Your task to perform on an android device: turn on showing notifications on the lock screen Image 0: 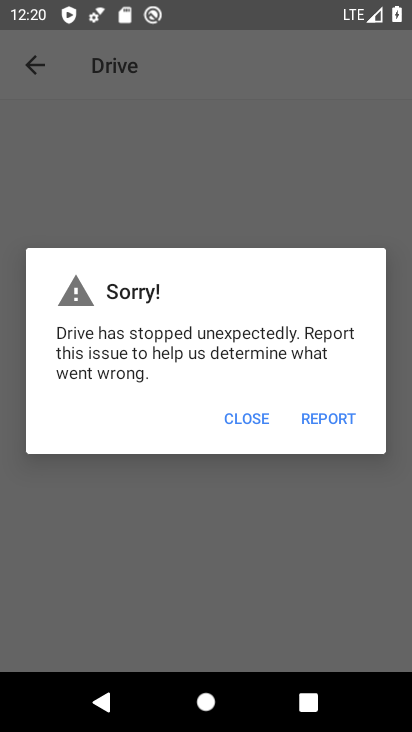
Step 0: press home button
Your task to perform on an android device: turn on showing notifications on the lock screen Image 1: 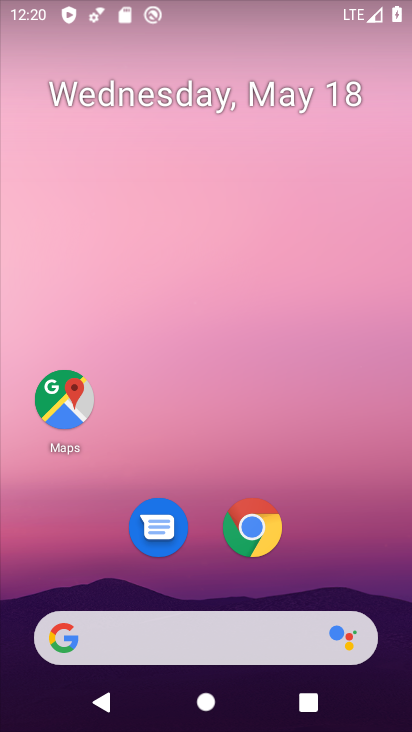
Step 1: drag from (318, 536) to (197, 75)
Your task to perform on an android device: turn on showing notifications on the lock screen Image 2: 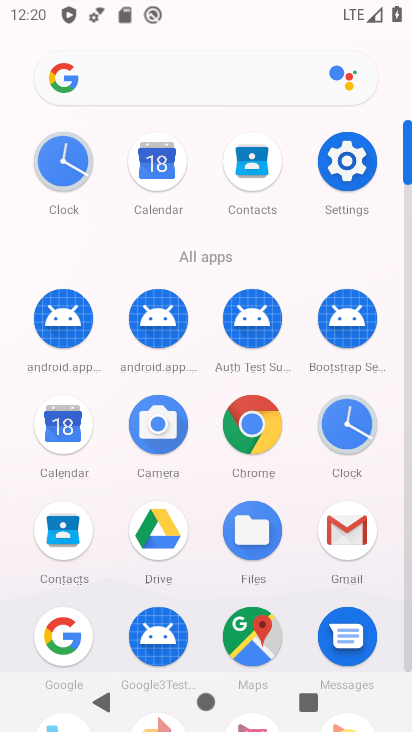
Step 2: click (345, 177)
Your task to perform on an android device: turn on showing notifications on the lock screen Image 3: 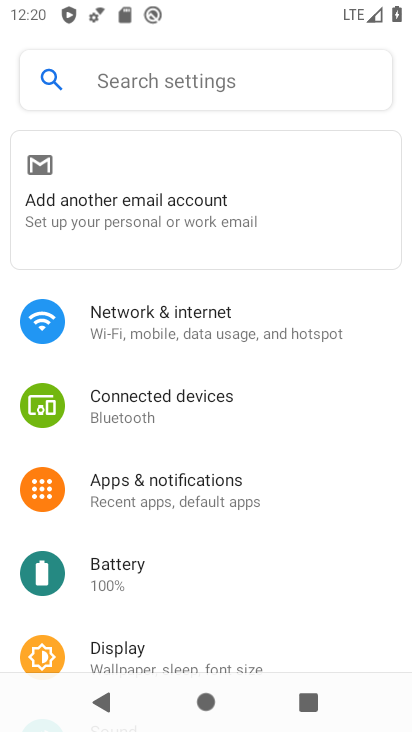
Step 3: click (197, 492)
Your task to perform on an android device: turn on showing notifications on the lock screen Image 4: 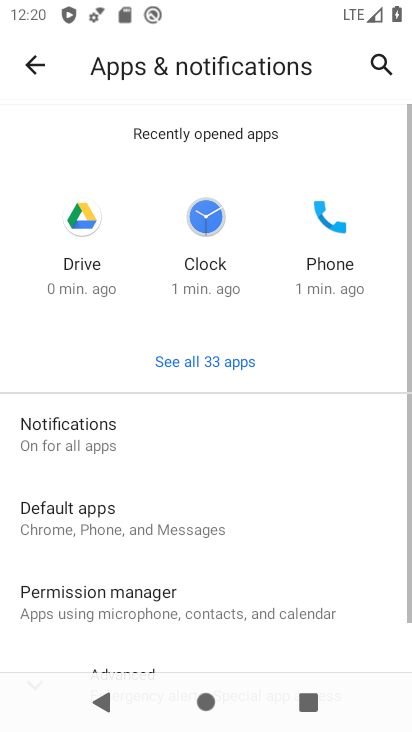
Step 4: click (113, 444)
Your task to perform on an android device: turn on showing notifications on the lock screen Image 5: 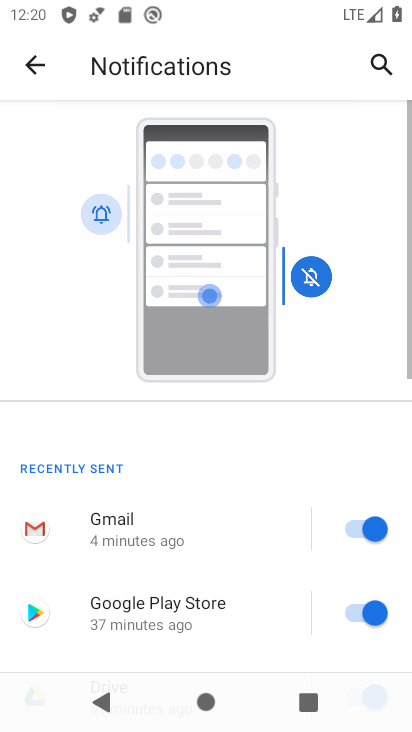
Step 5: drag from (275, 468) to (245, 73)
Your task to perform on an android device: turn on showing notifications on the lock screen Image 6: 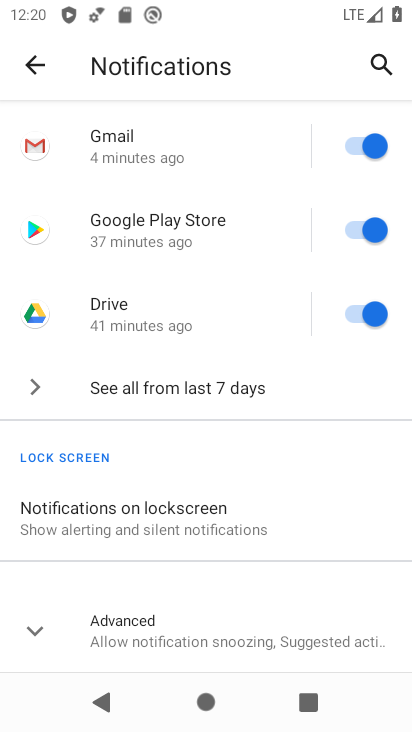
Step 6: click (228, 517)
Your task to perform on an android device: turn on showing notifications on the lock screen Image 7: 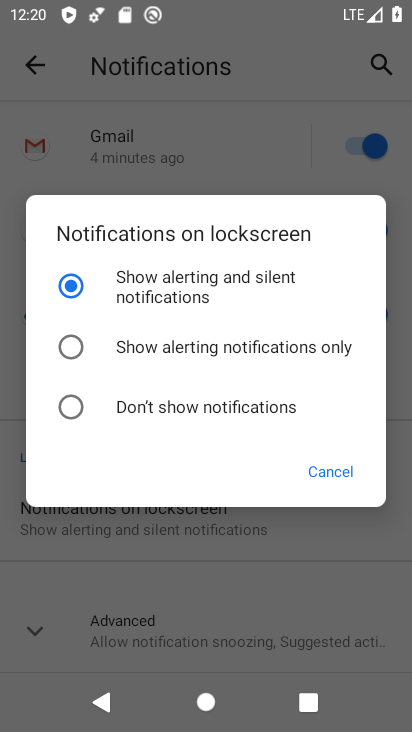
Step 7: task complete